Your task to perform on an android device: see creations saved in the google photos Image 0: 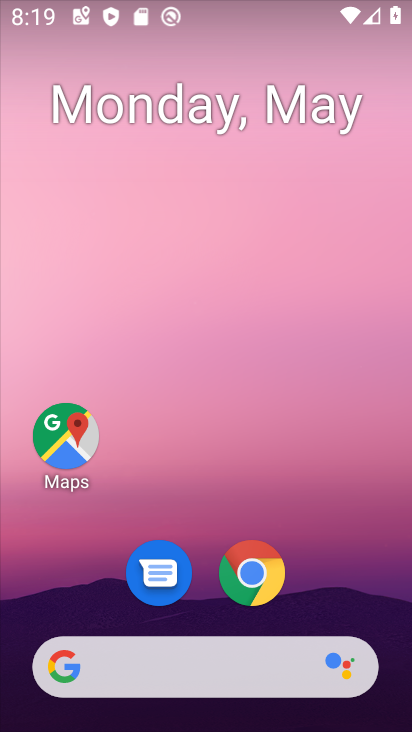
Step 0: drag from (342, 597) to (405, 112)
Your task to perform on an android device: see creations saved in the google photos Image 1: 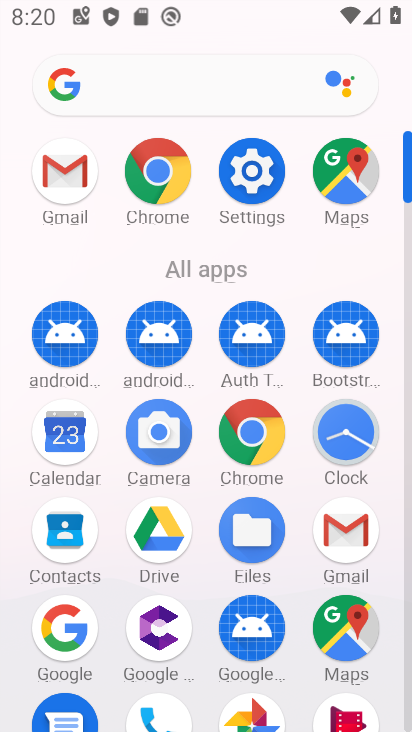
Step 1: click (254, 715)
Your task to perform on an android device: see creations saved in the google photos Image 2: 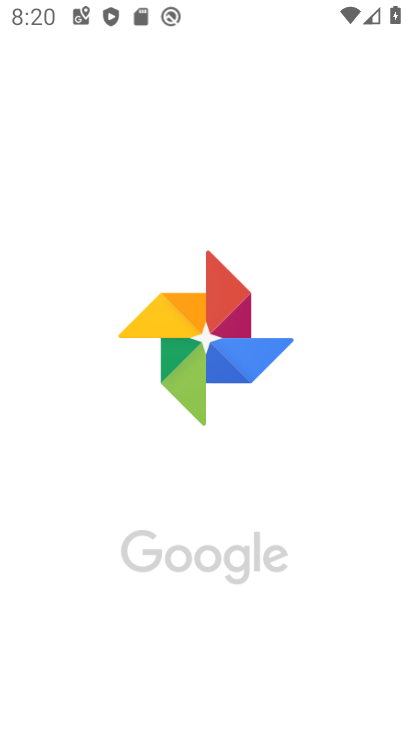
Step 2: click (254, 715)
Your task to perform on an android device: see creations saved in the google photos Image 3: 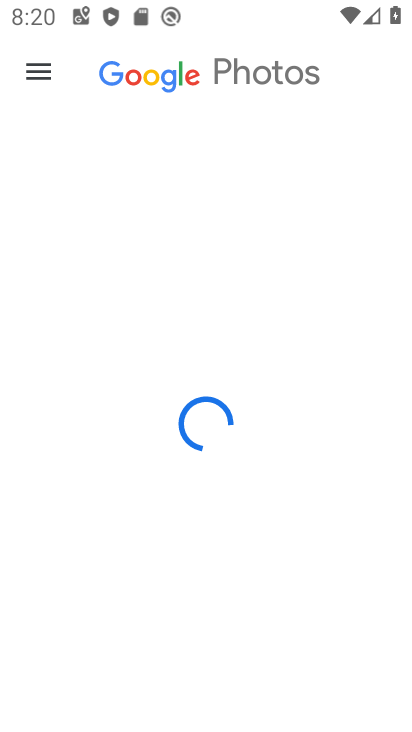
Step 3: task complete